Your task to perform on an android device: What is the news today? Image 0: 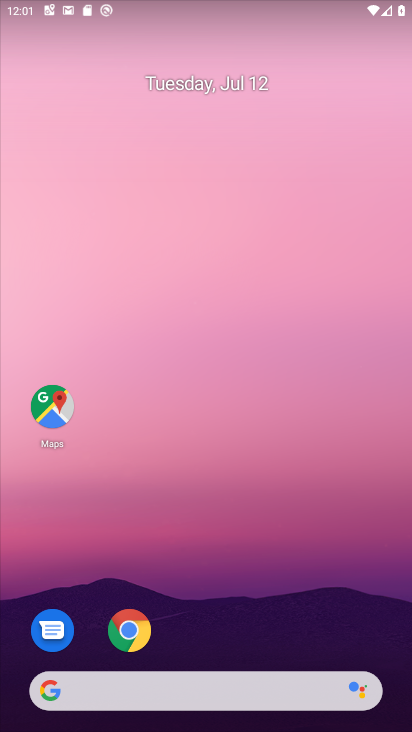
Step 0: drag from (191, 640) to (190, 345)
Your task to perform on an android device: What is the news today? Image 1: 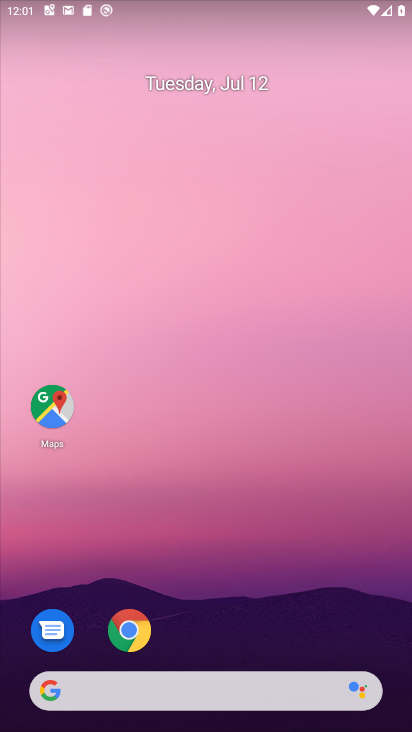
Step 1: drag from (223, 597) to (191, 169)
Your task to perform on an android device: What is the news today? Image 2: 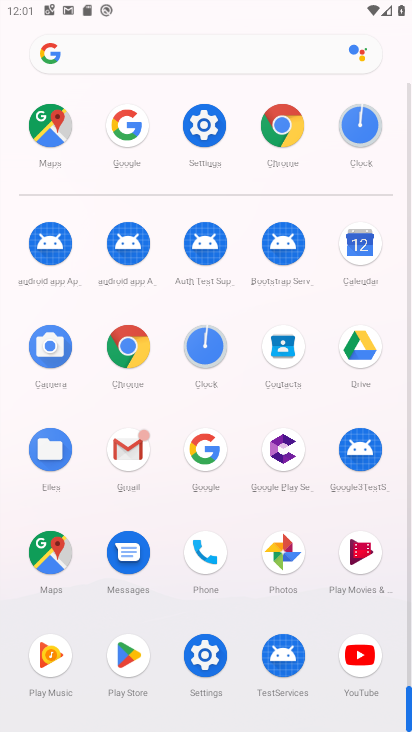
Step 2: drag from (230, 463) to (231, 287)
Your task to perform on an android device: What is the news today? Image 3: 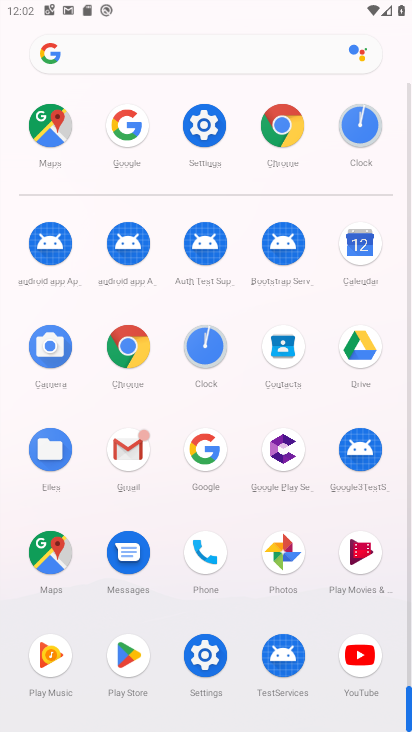
Step 3: click (204, 454)
Your task to perform on an android device: What is the news today? Image 4: 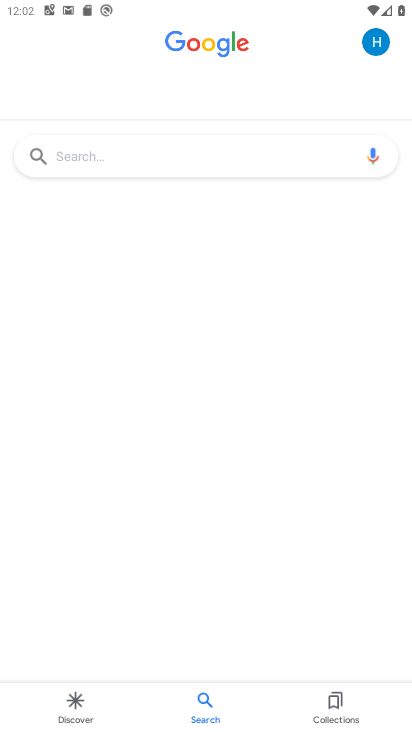
Step 4: click (218, 151)
Your task to perform on an android device: What is the news today? Image 5: 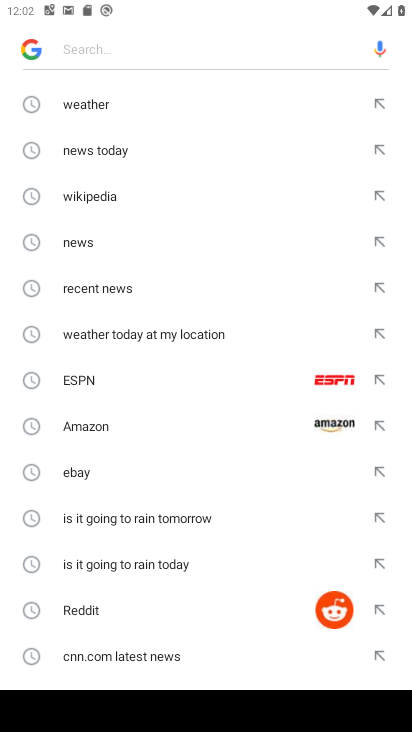
Step 5: click (143, 145)
Your task to perform on an android device: What is the news today? Image 6: 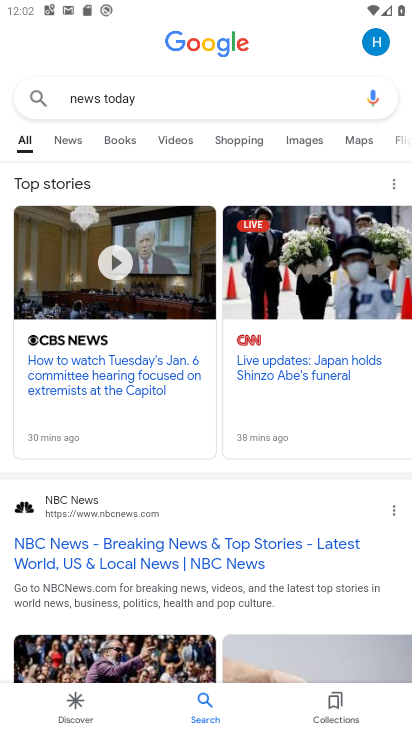
Step 6: click (52, 143)
Your task to perform on an android device: What is the news today? Image 7: 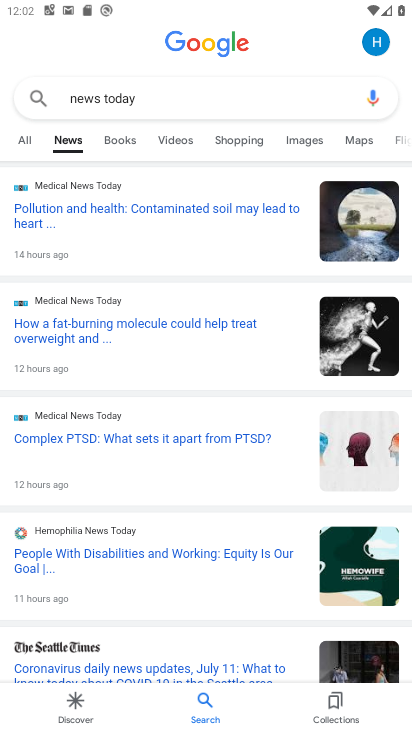
Step 7: task complete